Your task to perform on an android device: empty trash in the gmail app Image 0: 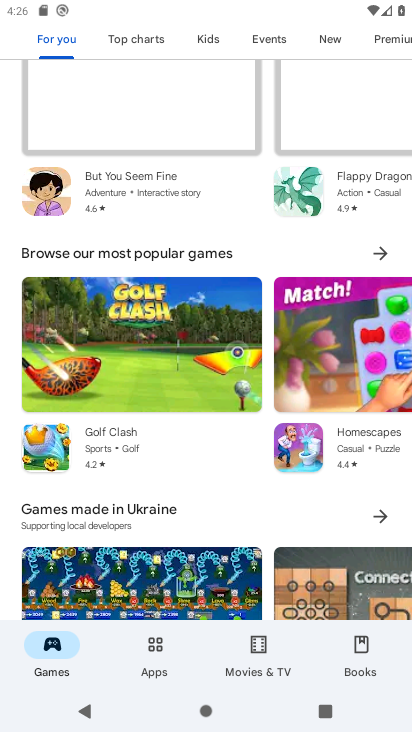
Step 0: press back button
Your task to perform on an android device: empty trash in the gmail app Image 1: 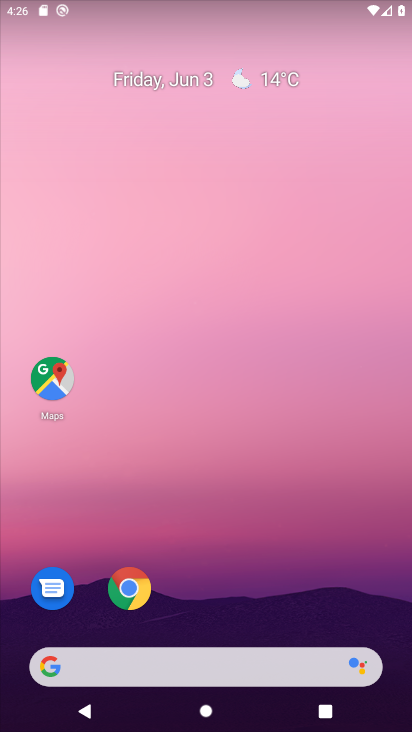
Step 1: drag from (249, 574) to (240, 36)
Your task to perform on an android device: empty trash in the gmail app Image 2: 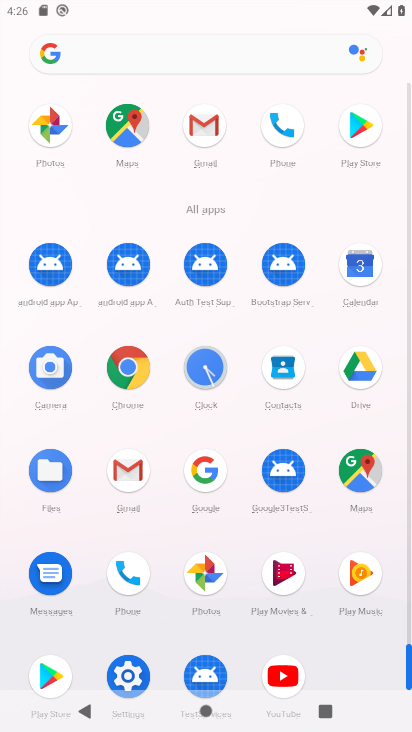
Step 2: drag from (4, 493) to (128, 410)
Your task to perform on an android device: empty trash in the gmail app Image 3: 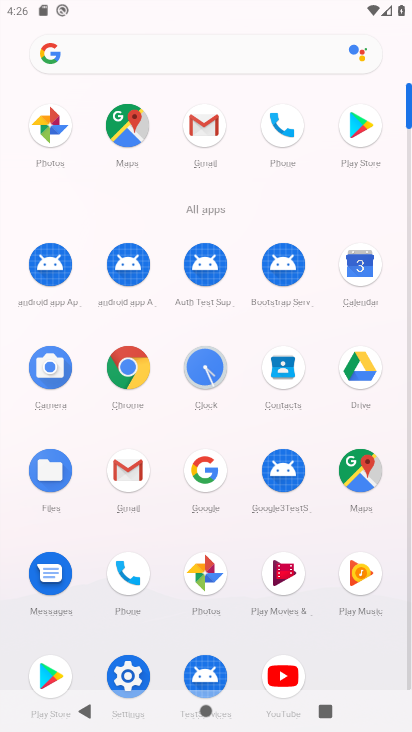
Step 3: click (127, 468)
Your task to perform on an android device: empty trash in the gmail app Image 4: 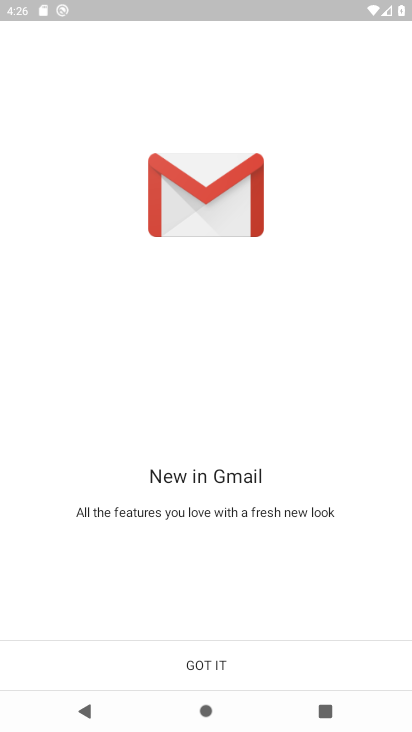
Step 4: click (236, 651)
Your task to perform on an android device: empty trash in the gmail app Image 5: 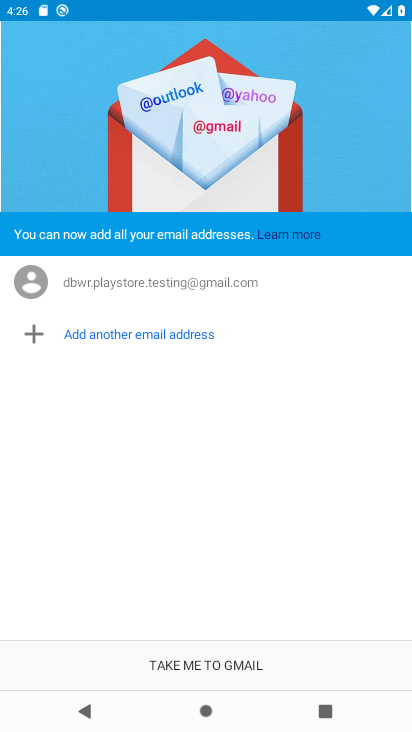
Step 5: click (205, 653)
Your task to perform on an android device: empty trash in the gmail app Image 6: 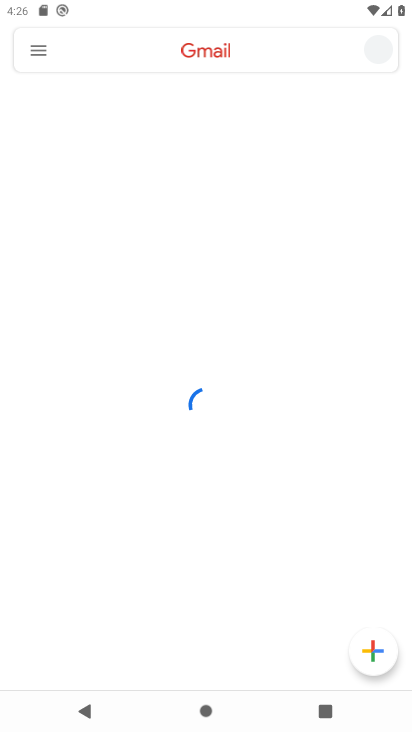
Step 6: click (27, 38)
Your task to perform on an android device: empty trash in the gmail app Image 7: 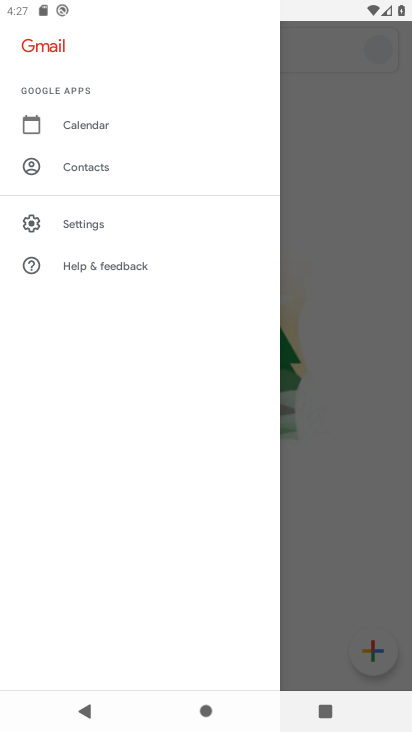
Step 7: click (104, 228)
Your task to perform on an android device: empty trash in the gmail app Image 8: 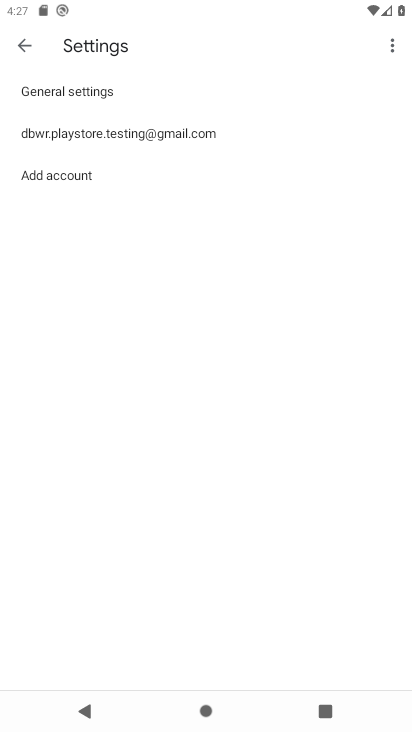
Step 8: click (109, 135)
Your task to perform on an android device: empty trash in the gmail app Image 9: 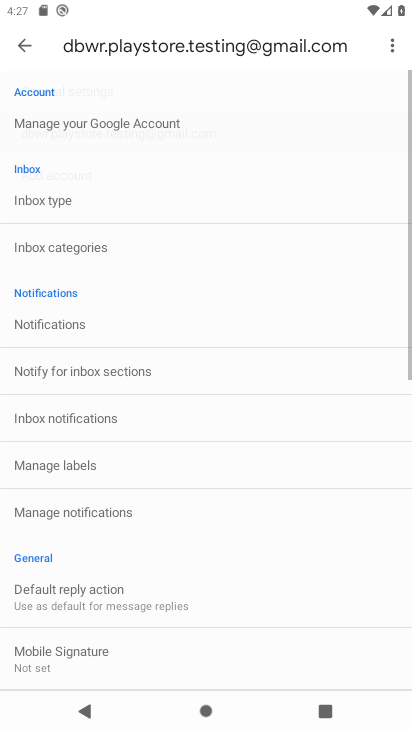
Step 9: click (19, 38)
Your task to perform on an android device: empty trash in the gmail app Image 10: 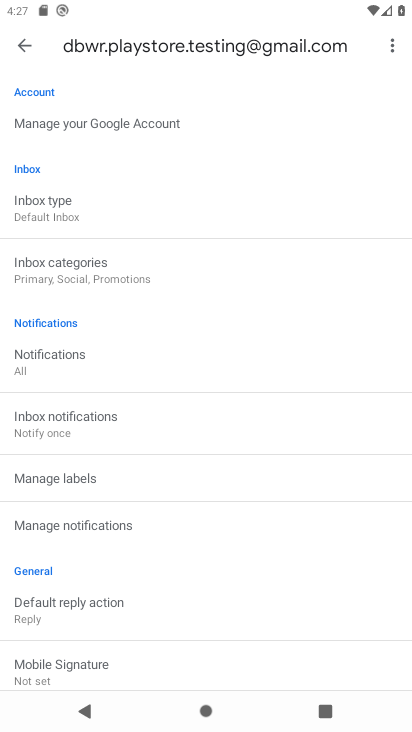
Step 10: click (25, 38)
Your task to perform on an android device: empty trash in the gmail app Image 11: 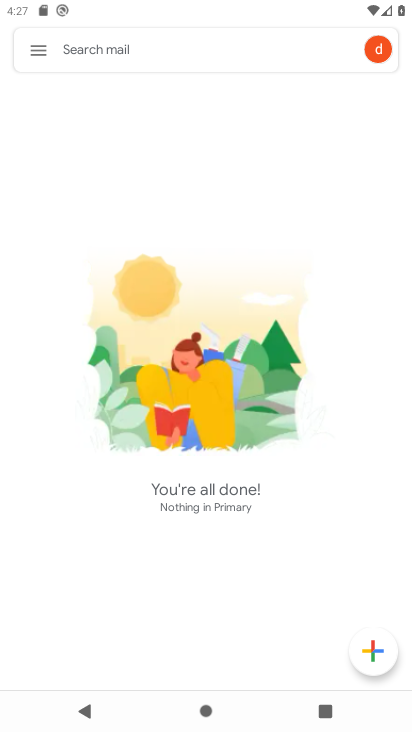
Step 11: click (25, 38)
Your task to perform on an android device: empty trash in the gmail app Image 12: 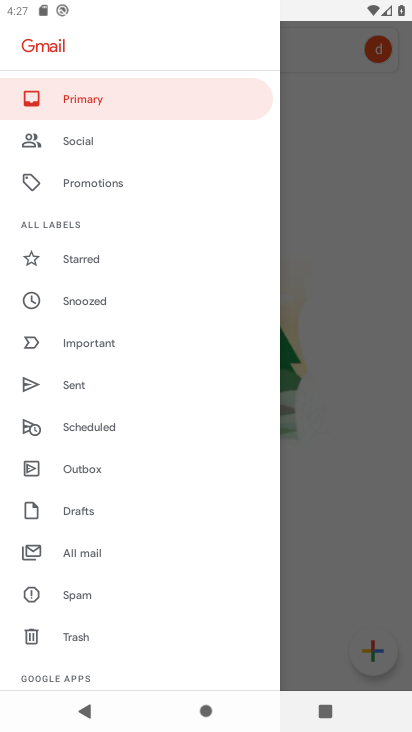
Step 12: click (93, 634)
Your task to perform on an android device: empty trash in the gmail app Image 13: 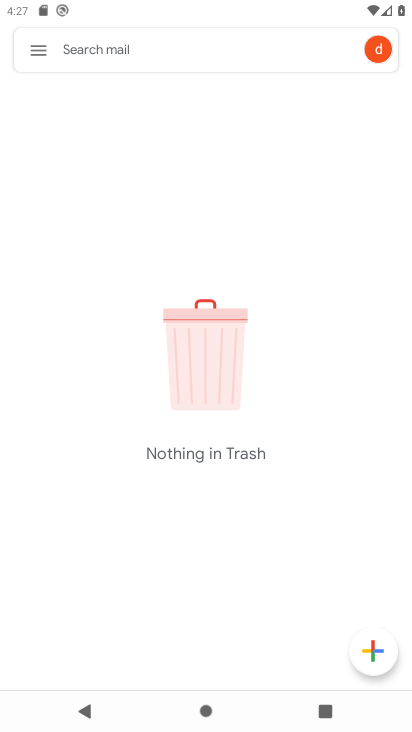
Step 13: task complete